Your task to perform on an android device: check google app version Image 0: 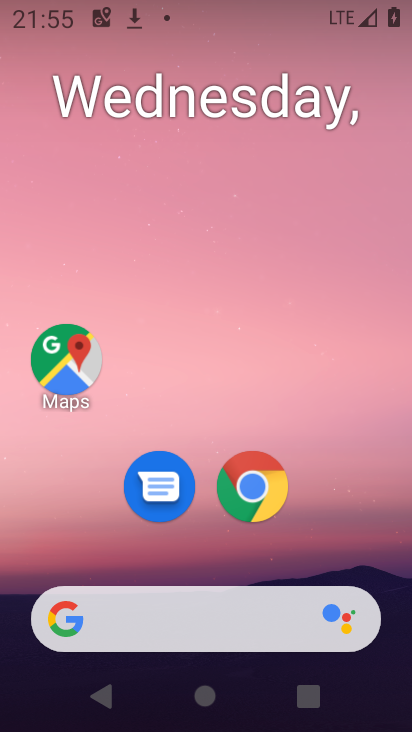
Step 0: drag from (179, 543) to (268, 6)
Your task to perform on an android device: check google app version Image 1: 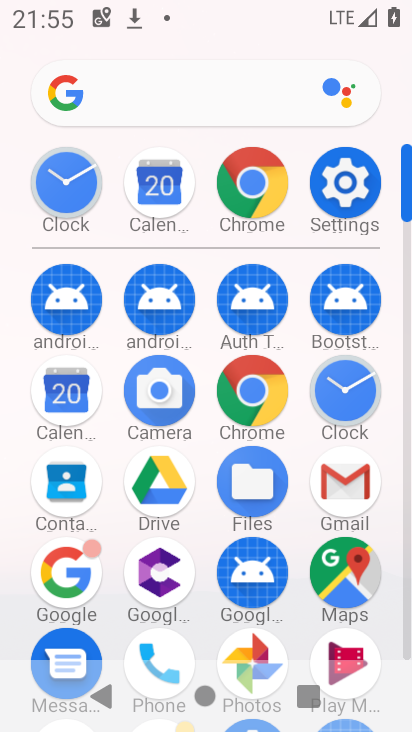
Step 1: click (74, 579)
Your task to perform on an android device: check google app version Image 2: 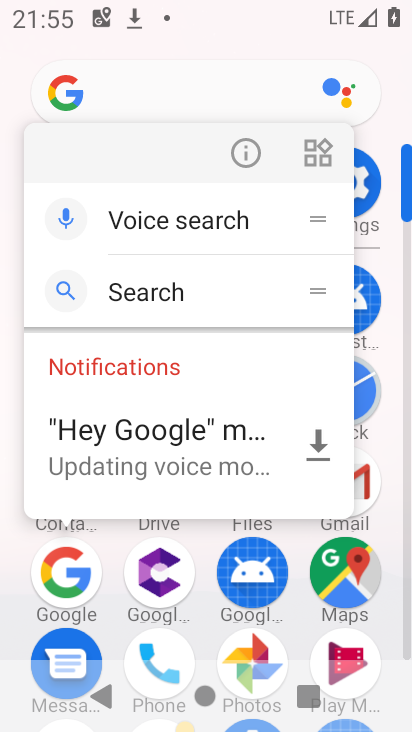
Step 2: click (247, 149)
Your task to perform on an android device: check google app version Image 3: 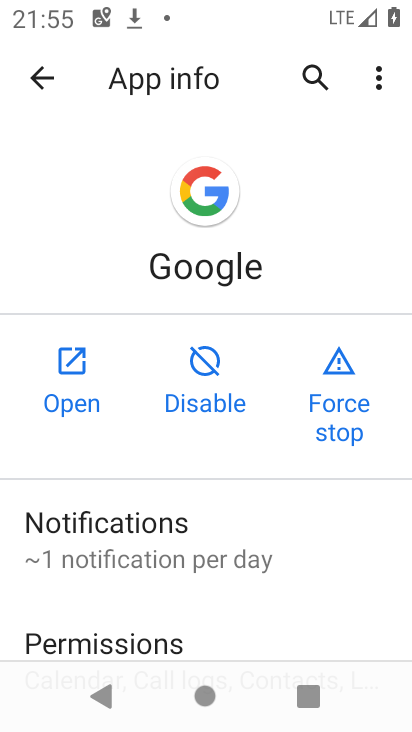
Step 3: drag from (102, 609) to (209, 98)
Your task to perform on an android device: check google app version Image 4: 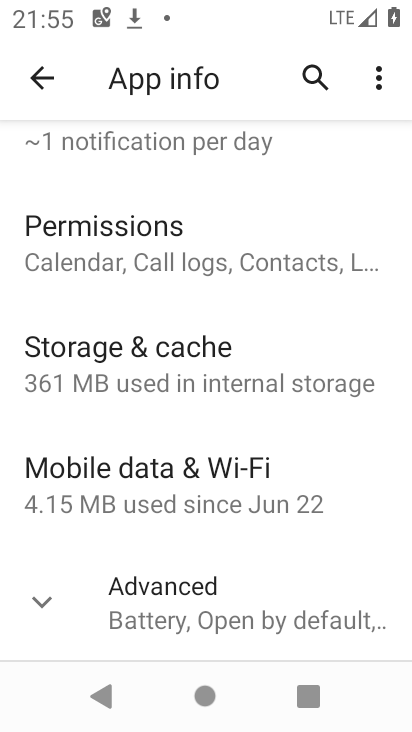
Step 4: click (146, 604)
Your task to perform on an android device: check google app version Image 5: 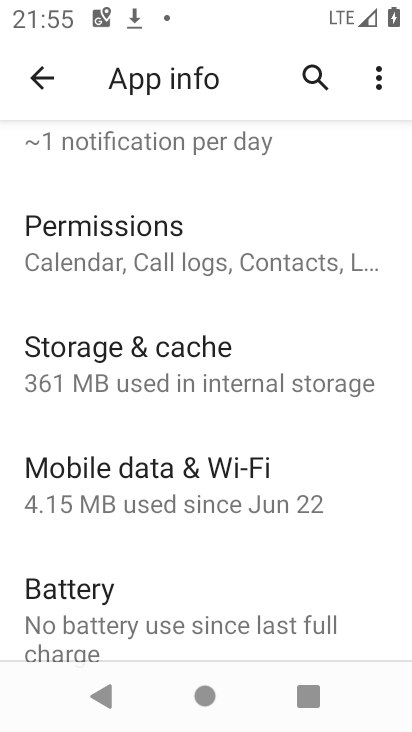
Step 5: task complete